Your task to perform on an android device: search for starred emails in the gmail app Image 0: 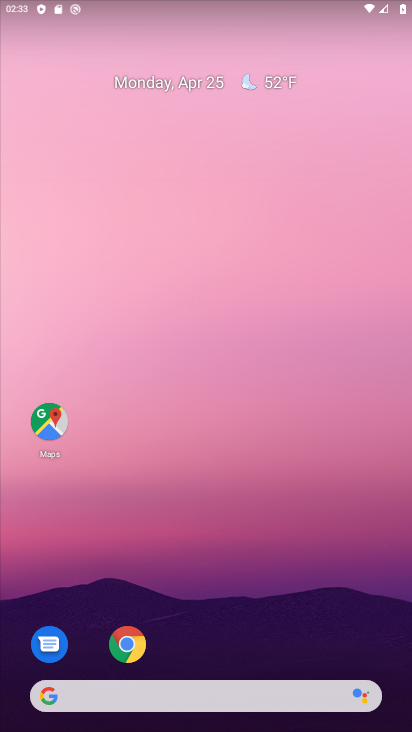
Step 0: drag from (208, 635) to (218, 14)
Your task to perform on an android device: search for starred emails in the gmail app Image 1: 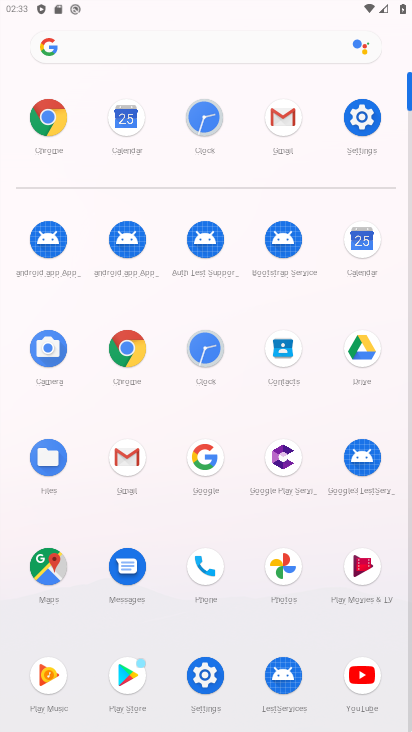
Step 1: click (293, 128)
Your task to perform on an android device: search for starred emails in the gmail app Image 2: 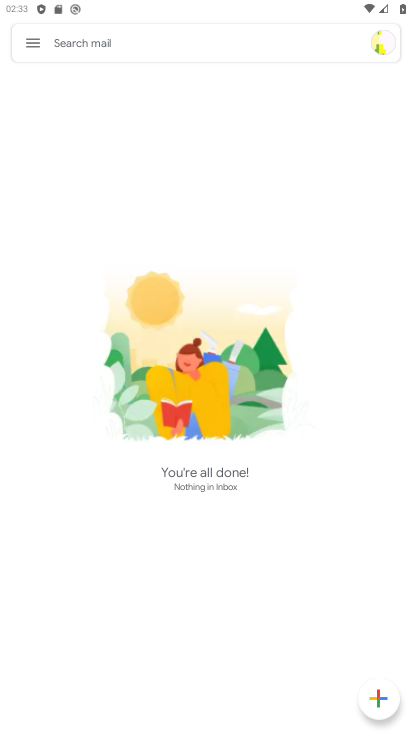
Step 2: click (38, 54)
Your task to perform on an android device: search for starred emails in the gmail app Image 3: 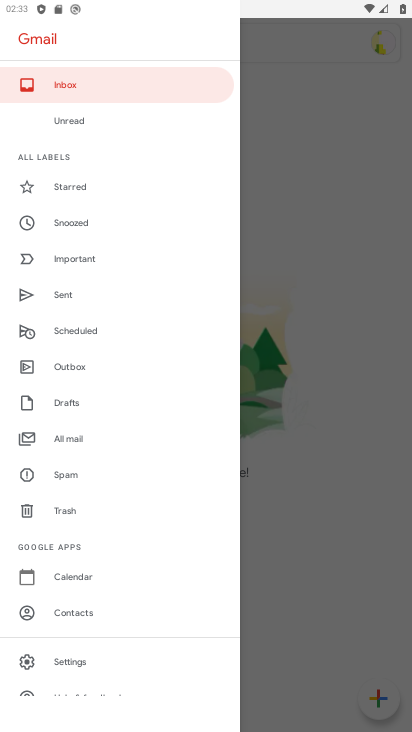
Step 3: click (85, 190)
Your task to perform on an android device: search for starred emails in the gmail app Image 4: 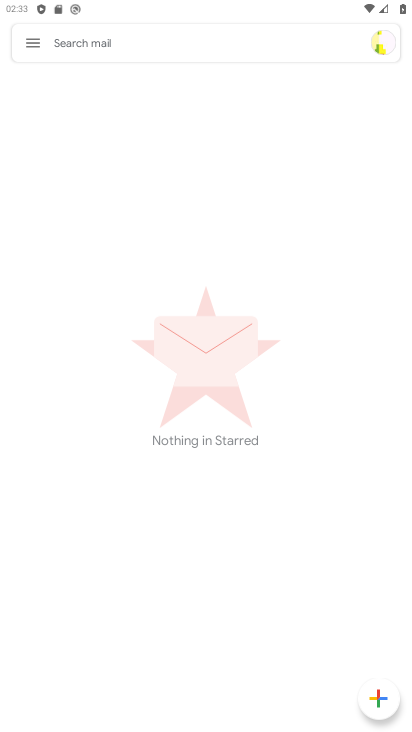
Step 4: task complete